Your task to perform on an android device: Open notification settings Image 0: 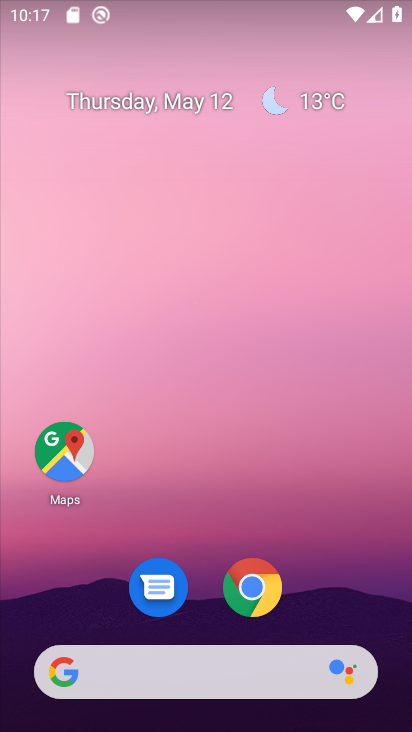
Step 0: drag from (206, 518) to (279, 118)
Your task to perform on an android device: Open notification settings Image 1: 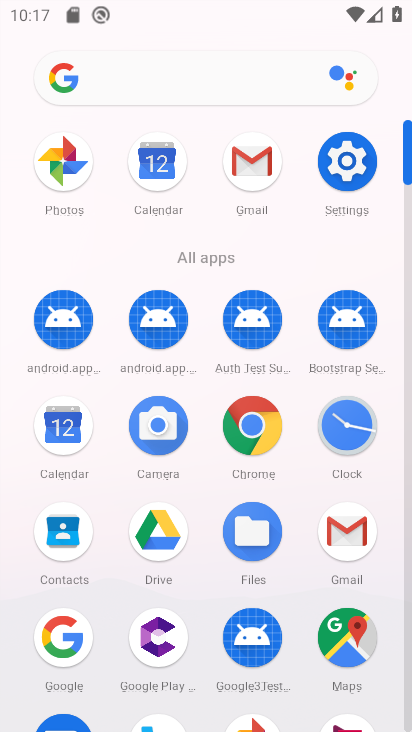
Step 1: click (338, 162)
Your task to perform on an android device: Open notification settings Image 2: 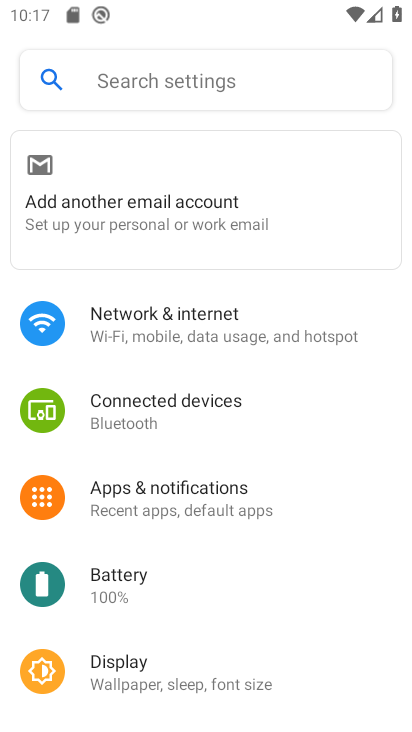
Step 2: click (153, 517)
Your task to perform on an android device: Open notification settings Image 3: 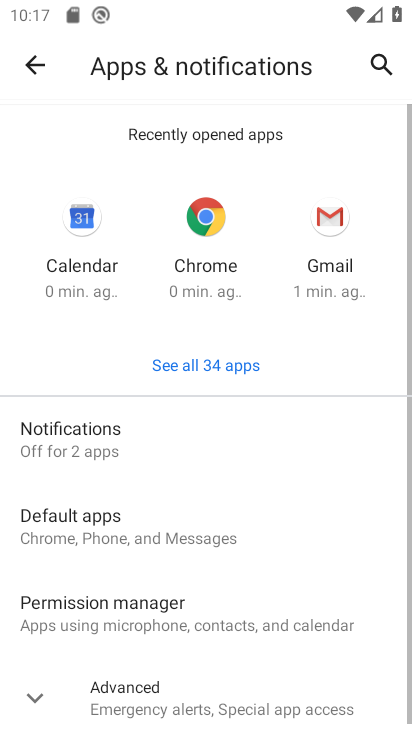
Step 3: click (125, 426)
Your task to perform on an android device: Open notification settings Image 4: 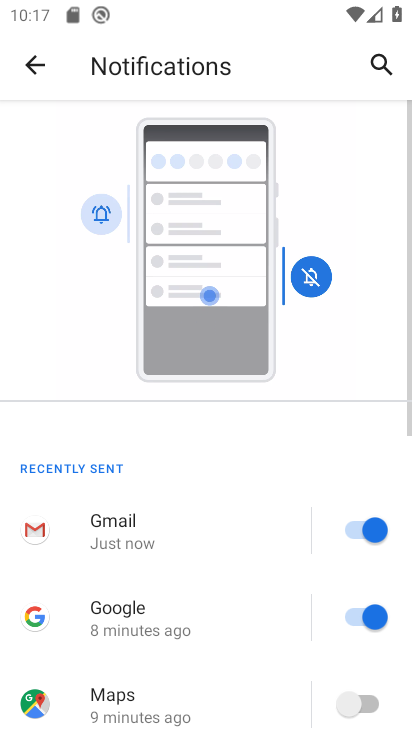
Step 4: task complete